Your task to perform on an android device: check google app version Image 0: 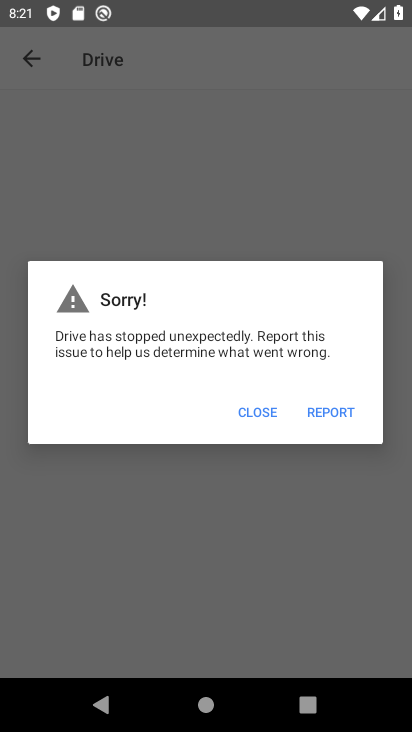
Step 0: press home button
Your task to perform on an android device: check google app version Image 1: 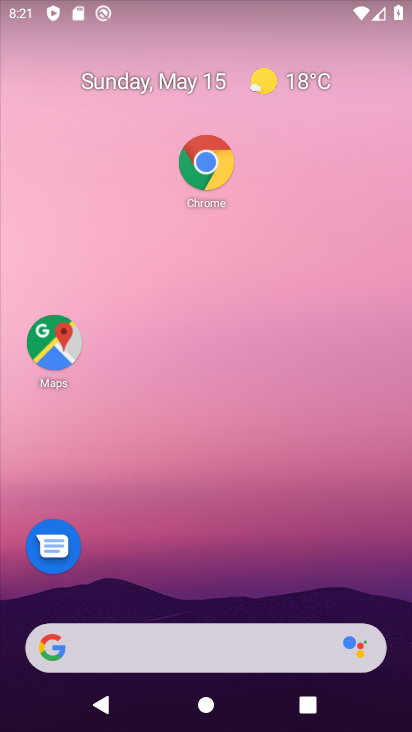
Step 1: drag from (266, 556) to (312, 153)
Your task to perform on an android device: check google app version Image 2: 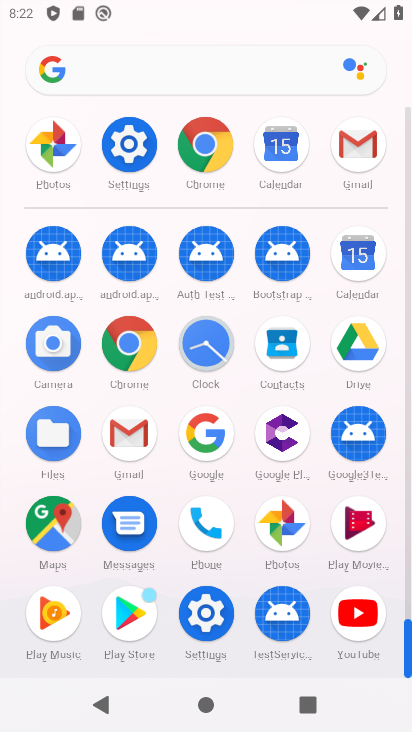
Step 2: click (198, 416)
Your task to perform on an android device: check google app version Image 3: 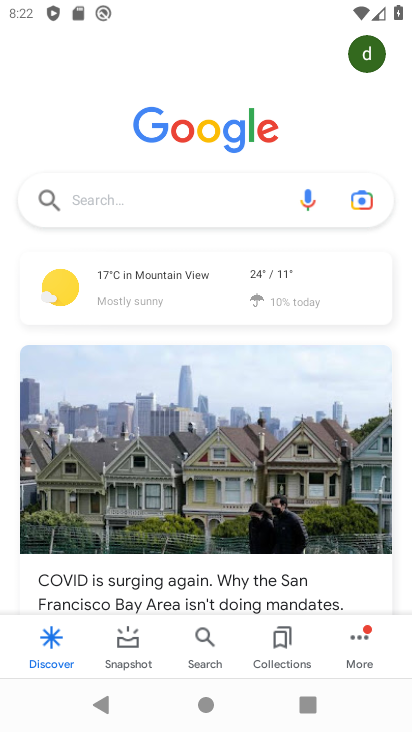
Step 3: click (369, 637)
Your task to perform on an android device: check google app version Image 4: 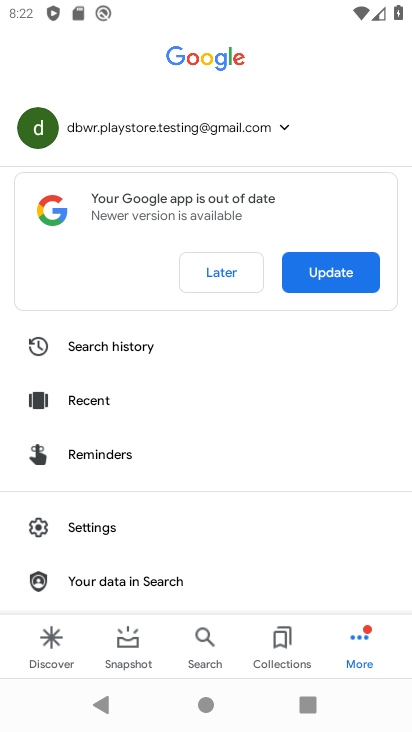
Step 4: click (148, 532)
Your task to perform on an android device: check google app version Image 5: 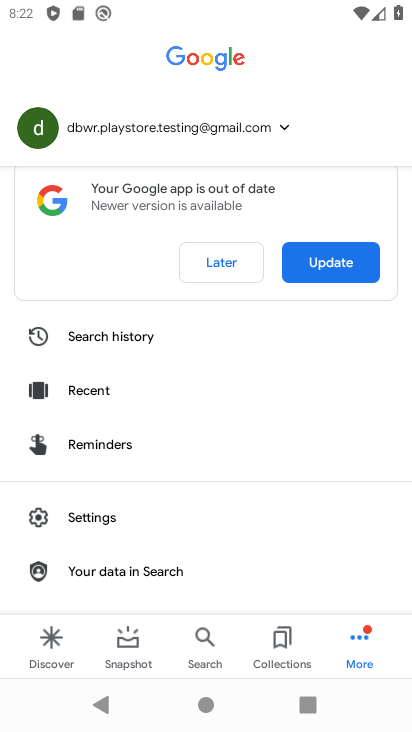
Step 5: click (135, 516)
Your task to perform on an android device: check google app version Image 6: 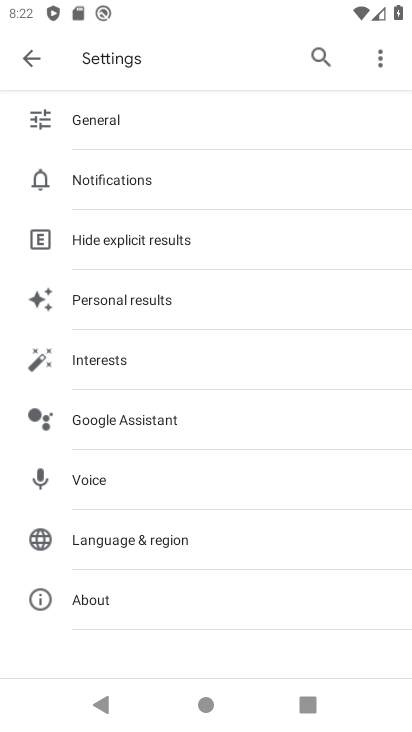
Step 6: click (136, 592)
Your task to perform on an android device: check google app version Image 7: 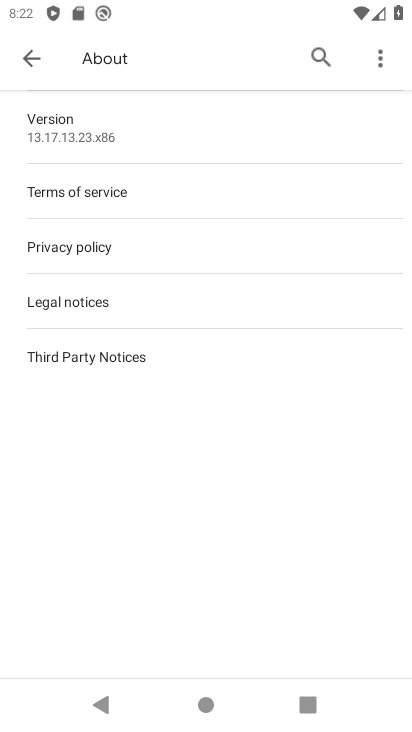
Step 7: task complete